Your task to perform on an android device: toggle show notifications on the lock screen Image 0: 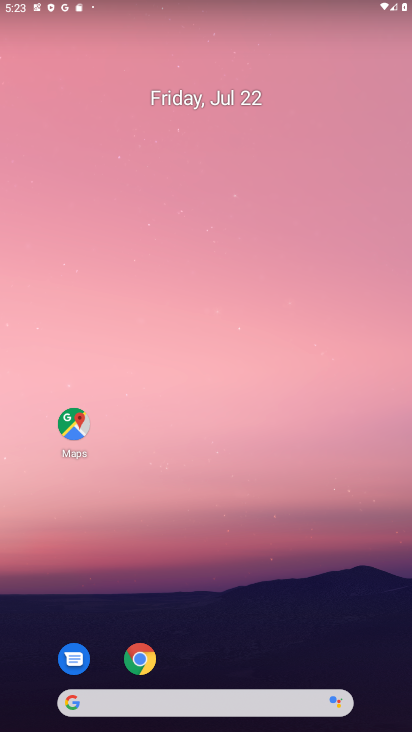
Step 0: drag from (228, 668) to (282, 40)
Your task to perform on an android device: toggle show notifications on the lock screen Image 1: 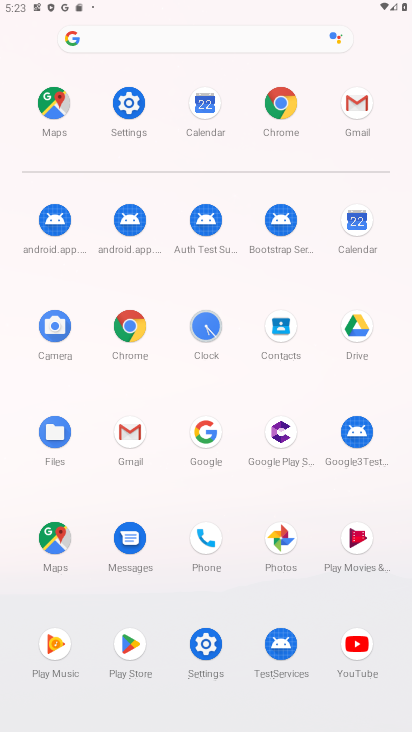
Step 1: click (125, 95)
Your task to perform on an android device: toggle show notifications on the lock screen Image 2: 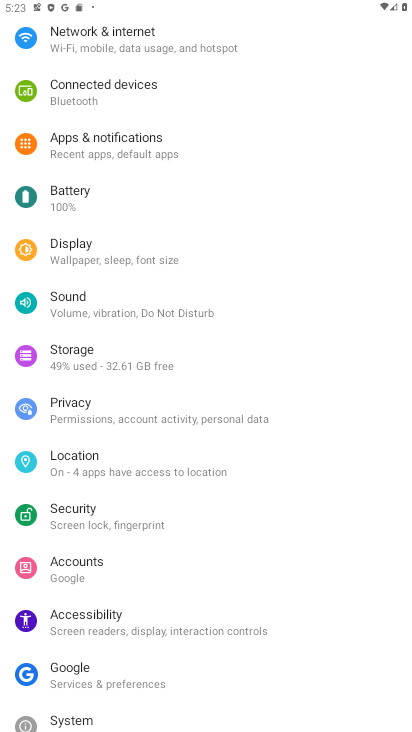
Step 2: click (146, 138)
Your task to perform on an android device: toggle show notifications on the lock screen Image 3: 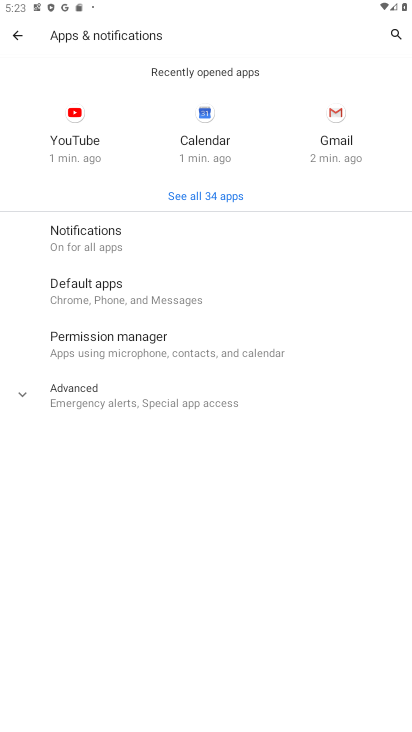
Step 3: click (133, 226)
Your task to perform on an android device: toggle show notifications on the lock screen Image 4: 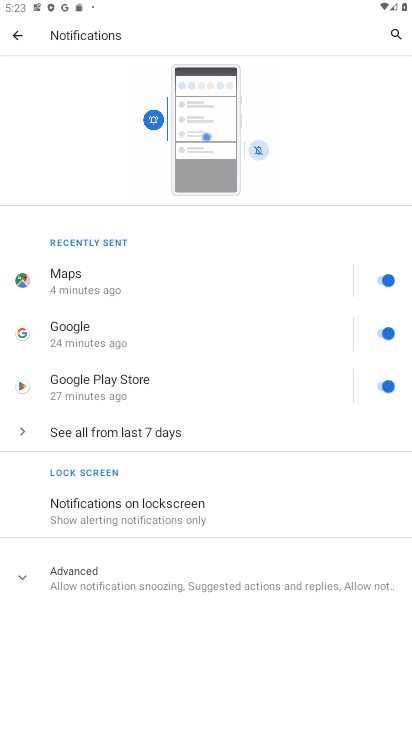
Step 4: click (181, 510)
Your task to perform on an android device: toggle show notifications on the lock screen Image 5: 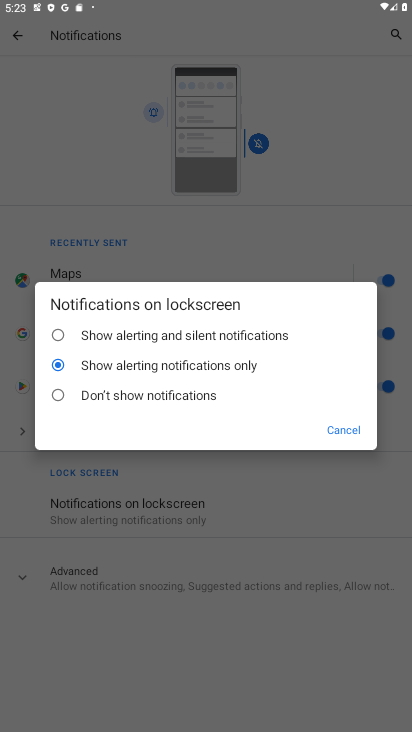
Step 5: click (59, 334)
Your task to perform on an android device: toggle show notifications on the lock screen Image 6: 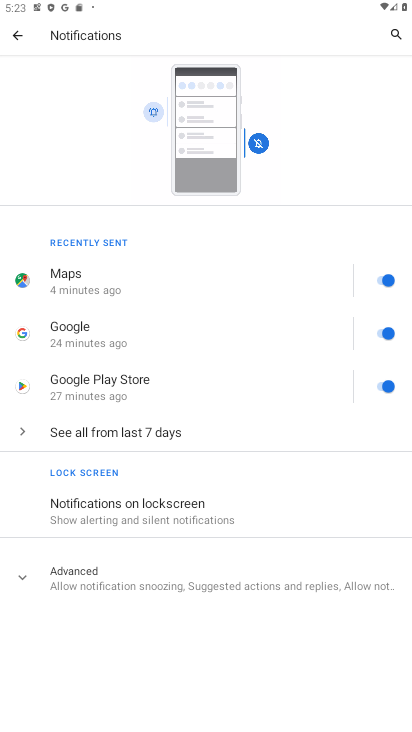
Step 6: task complete